Your task to perform on an android device: add a contact in the contacts app Image 0: 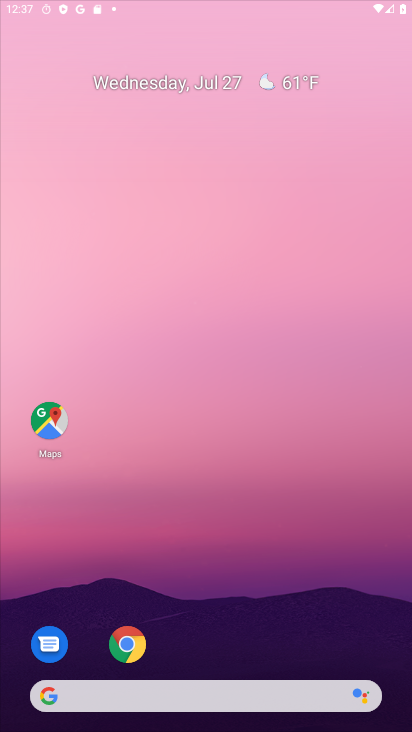
Step 0: drag from (195, 628) to (217, 325)
Your task to perform on an android device: add a contact in the contacts app Image 1: 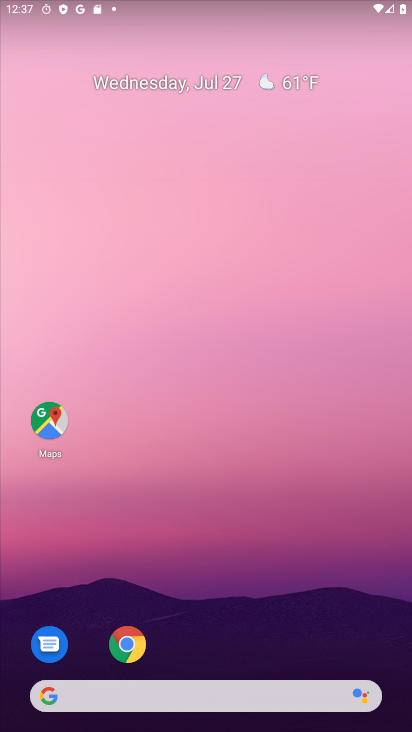
Step 1: drag from (204, 652) to (212, 583)
Your task to perform on an android device: add a contact in the contacts app Image 2: 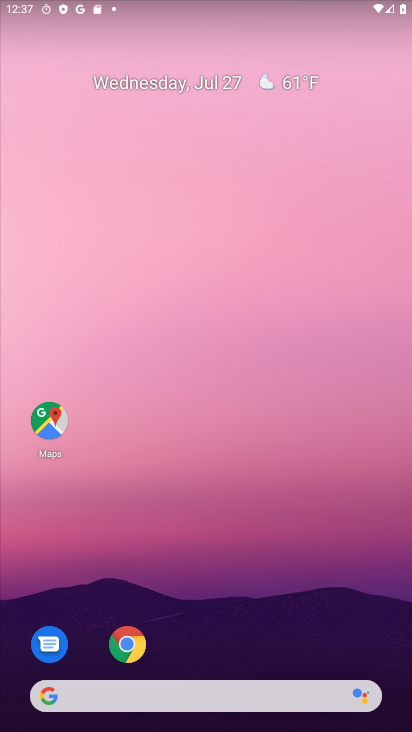
Step 2: drag from (231, 656) to (259, 460)
Your task to perform on an android device: add a contact in the contacts app Image 3: 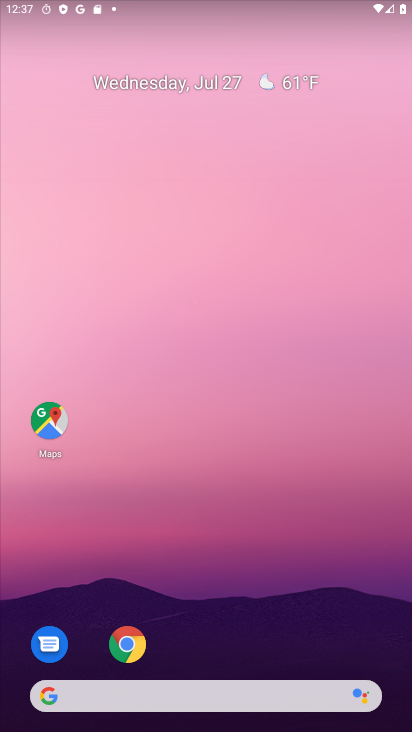
Step 3: drag from (193, 651) to (234, 321)
Your task to perform on an android device: add a contact in the contacts app Image 4: 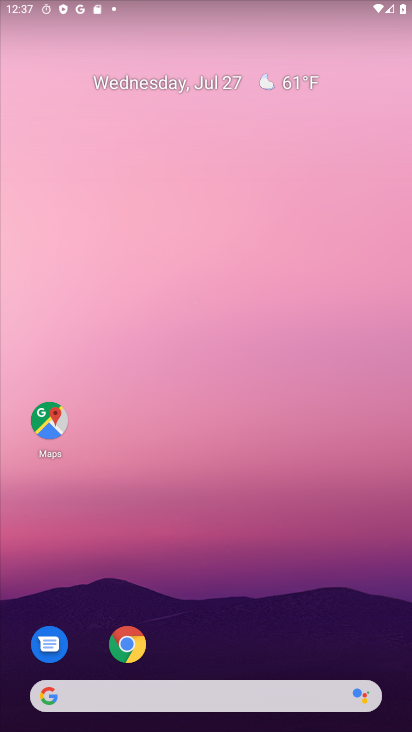
Step 4: drag from (158, 627) to (411, 483)
Your task to perform on an android device: add a contact in the contacts app Image 5: 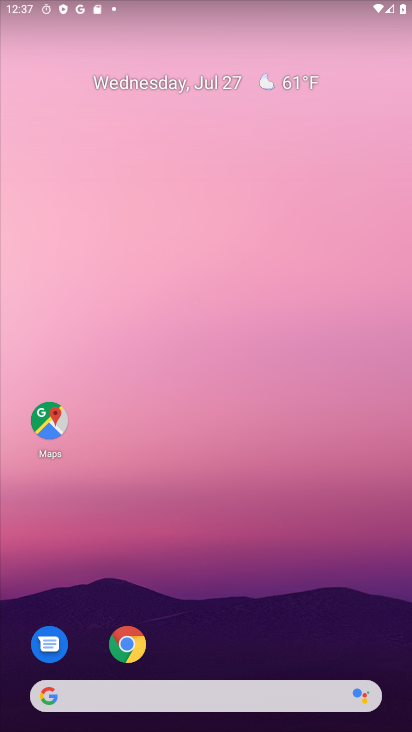
Step 5: drag from (205, 659) to (224, 40)
Your task to perform on an android device: add a contact in the contacts app Image 6: 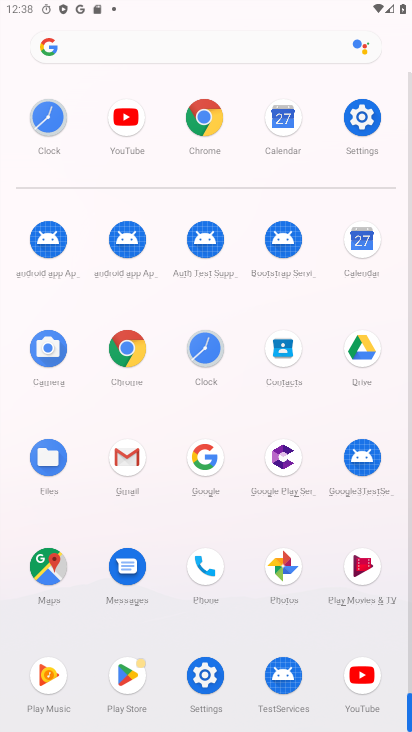
Step 6: click (281, 350)
Your task to perform on an android device: add a contact in the contacts app Image 7: 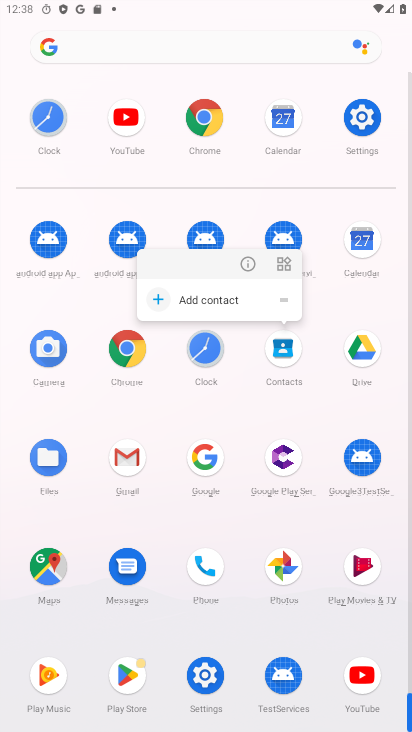
Step 7: click (244, 257)
Your task to perform on an android device: add a contact in the contacts app Image 8: 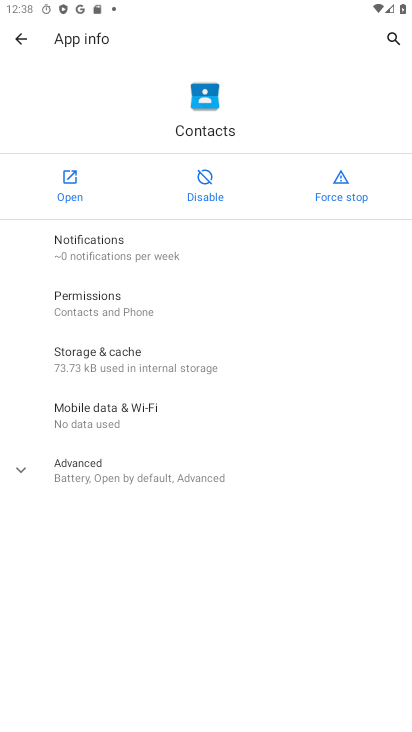
Step 8: click (65, 186)
Your task to perform on an android device: add a contact in the contacts app Image 9: 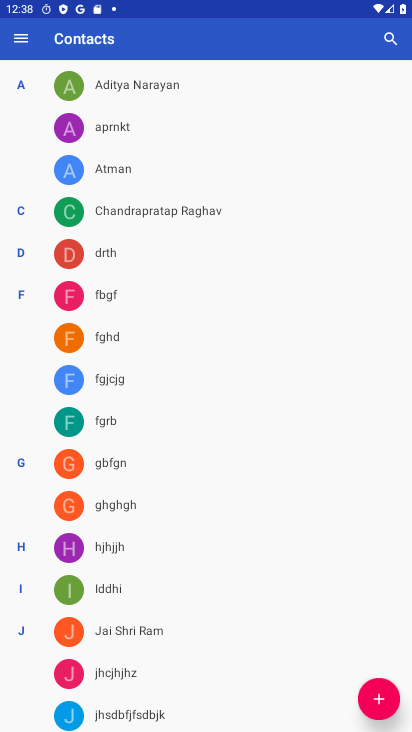
Step 9: click (393, 691)
Your task to perform on an android device: add a contact in the contacts app Image 10: 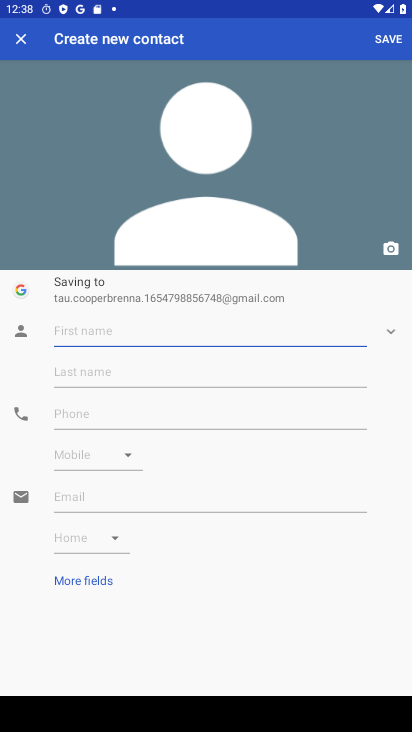
Step 10: type "jhjnknh"
Your task to perform on an android device: add a contact in the contacts app Image 11: 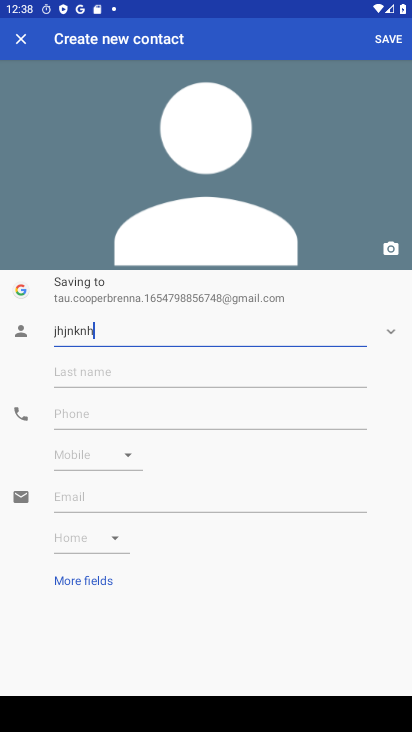
Step 11: click (95, 424)
Your task to perform on an android device: add a contact in the contacts app Image 12: 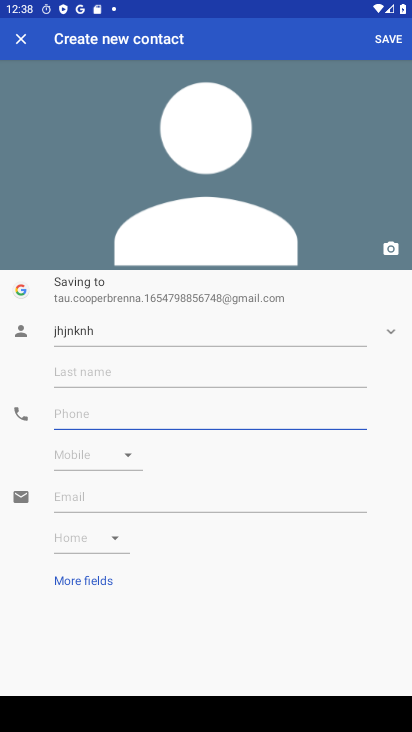
Step 12: type "868689"
Your task to perform on an android device: add a contact in the contacts app Image 13: 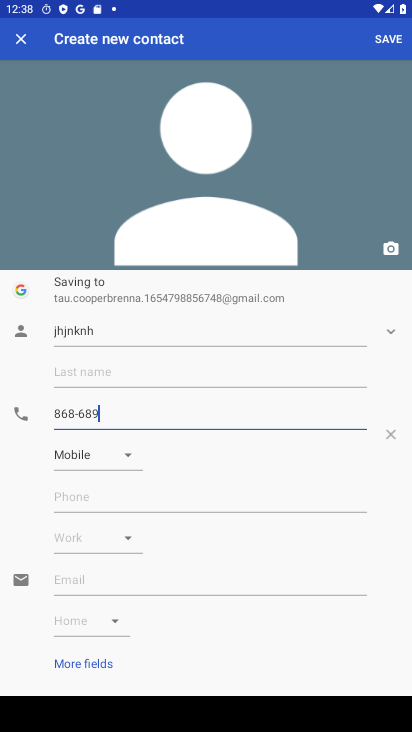
Step 13: click (377, 44)
Your task to perform on an android device: add a contact in the contacts app Image 14: 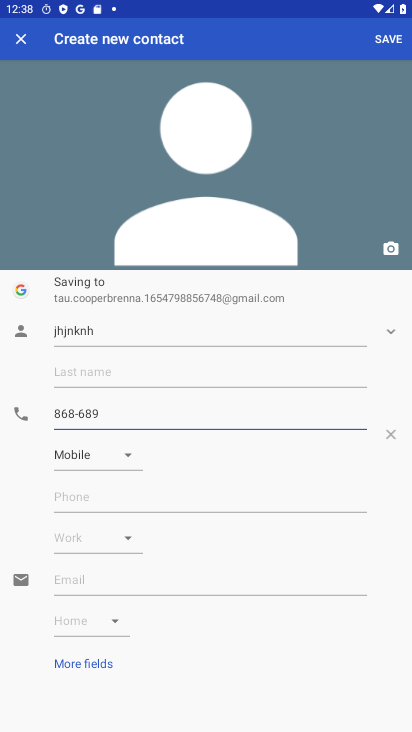
Step 14: task complete